Your task to perform on an android device: toggle notification dots Image 0: 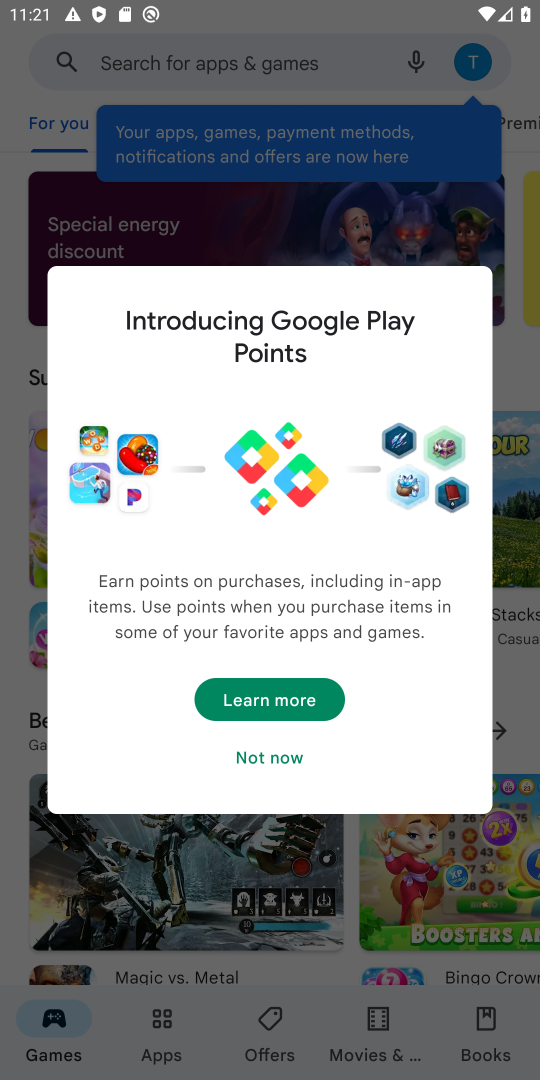
Step 0: press home button
Your task to perform on an android device: toggle notification dots Image 1: 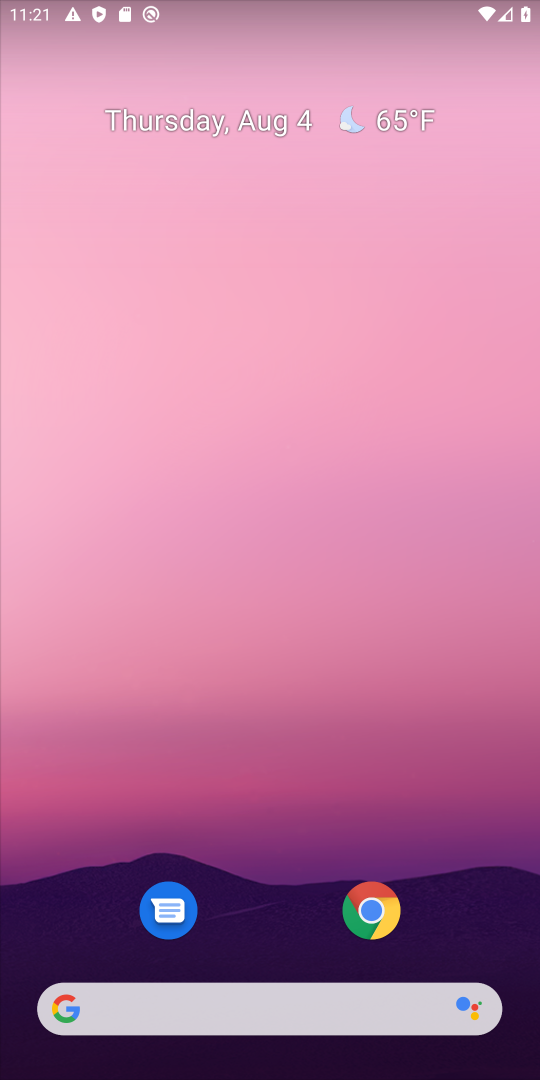
Step 1: drag from (211, 983) to (198, 298)
Your task to perform on an android device: toggle notification dots Image 2: 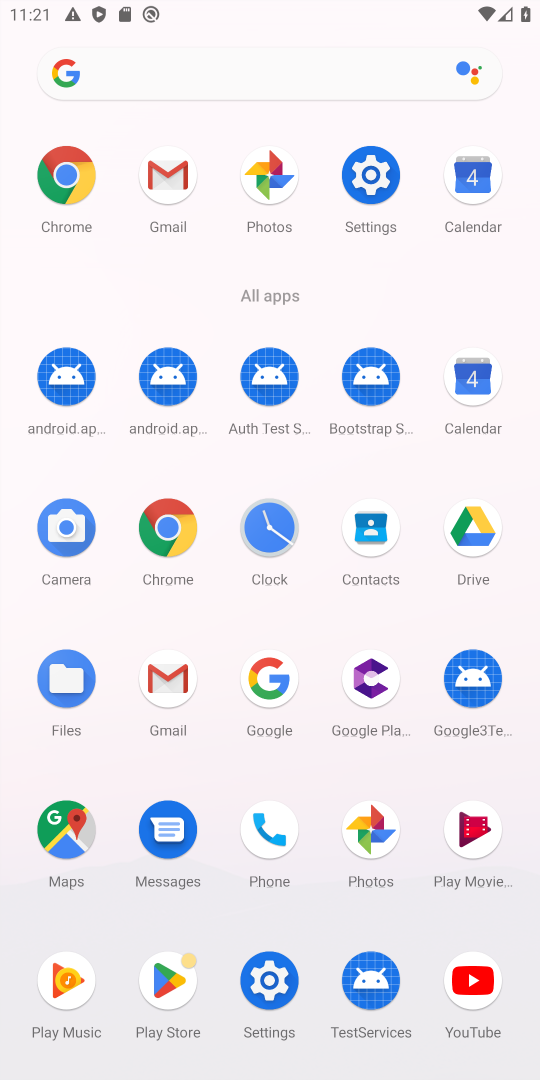
Step 2: click (371, 187)
Your task to perform on an android device: toggle notification dots Image 3: 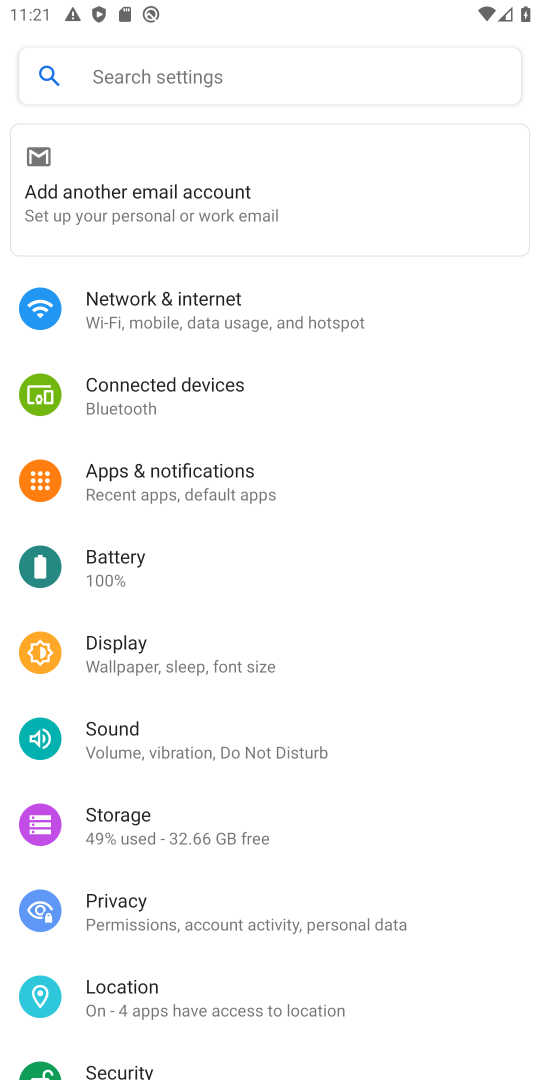
Step 3: click (200, 475)
Your task to perform on an android device: toggle notification dots Image 4: 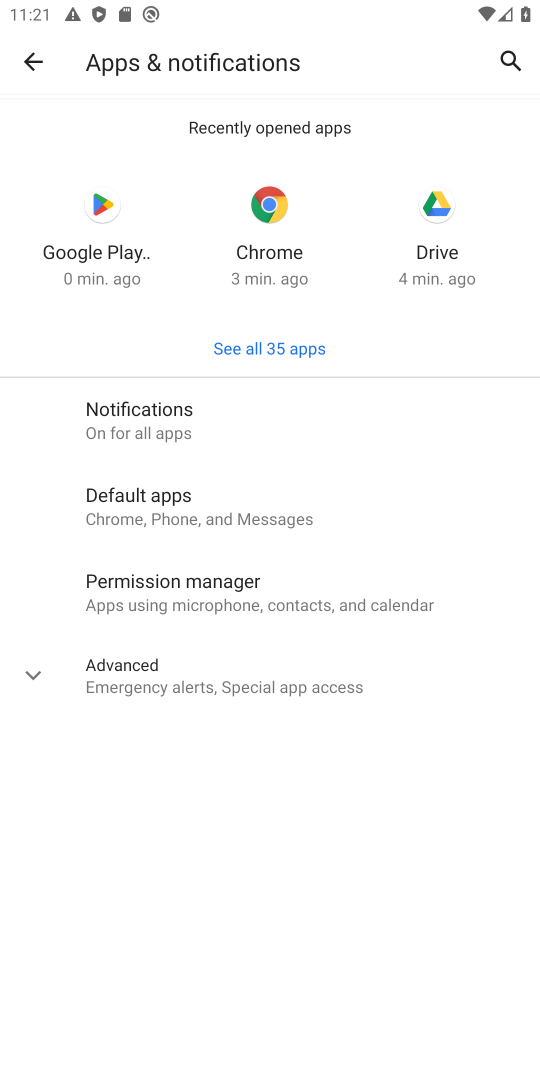
Step 4: click (167, 420)
Your task to perform on an android device: toggle notification dots Image 5: 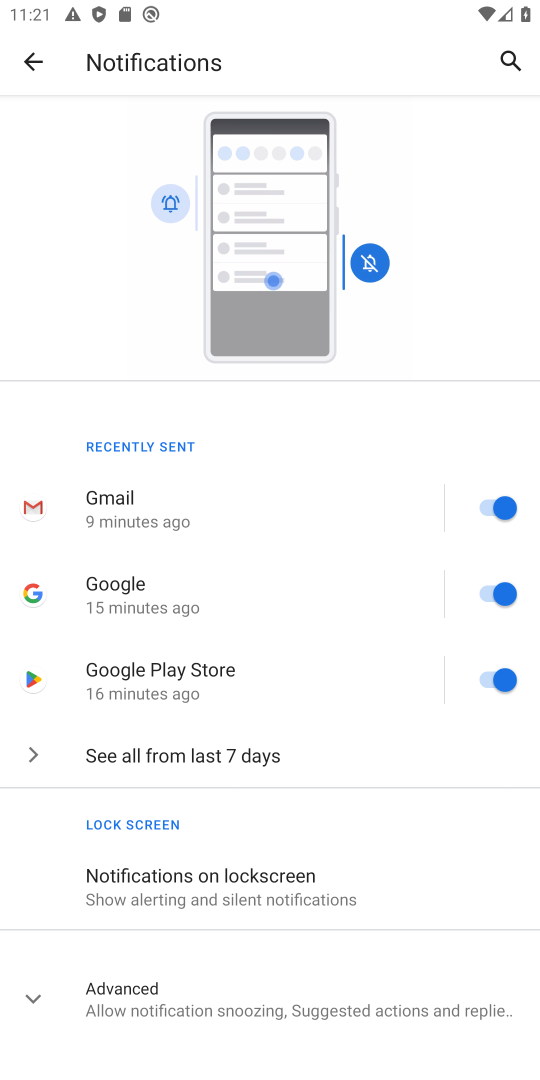
Step 5: click (170, 984)
Your task to perform on an android device: toggle notification dots Image 6: 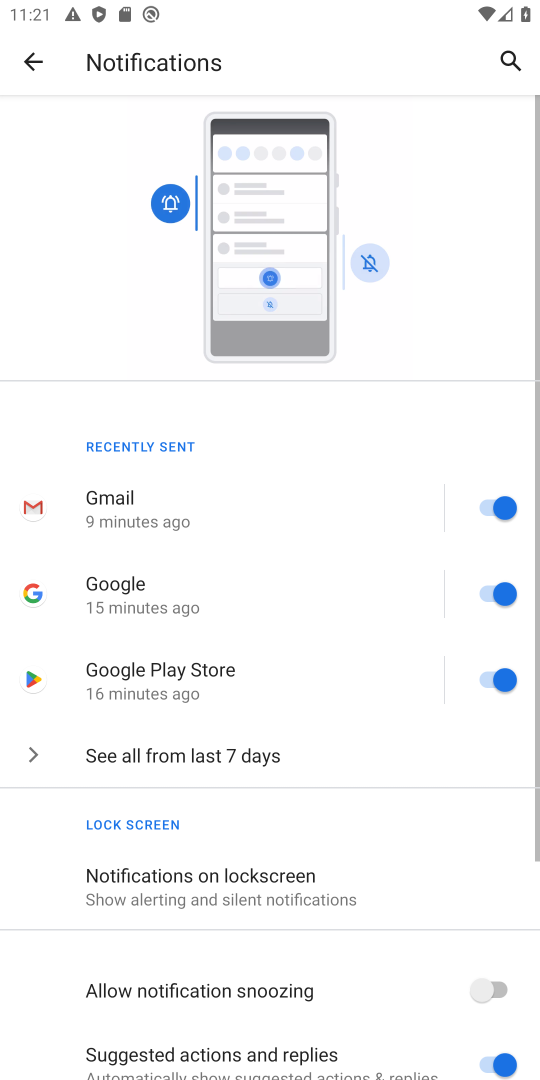
Step 6: drag from (168, 950) to (168, 508)
Your task to perform on an android device: toggle notification dots Image 7: 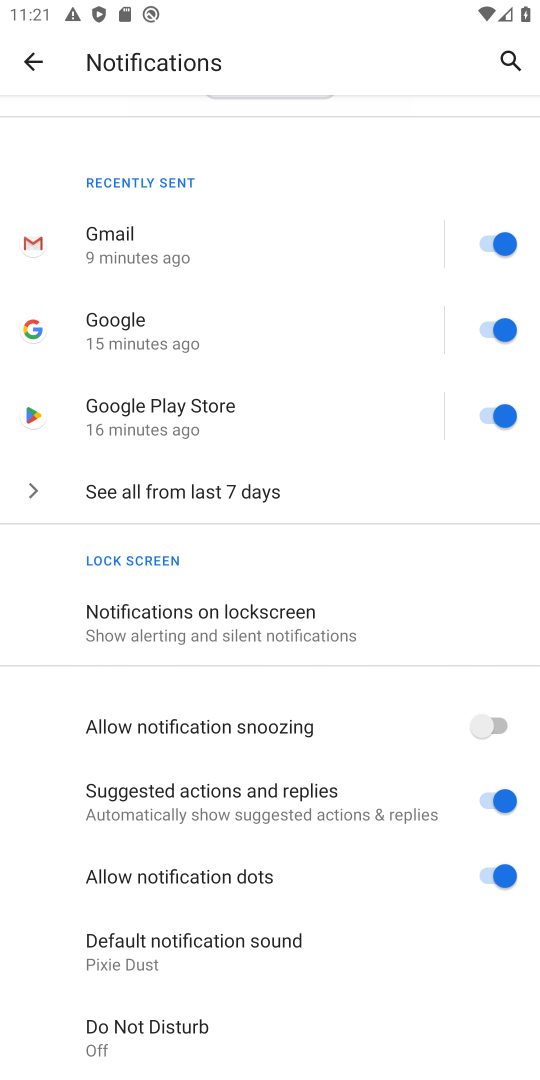
Step 7: click (487, 873)
Your task to perform on an android device: toggle notification dots Image 8: 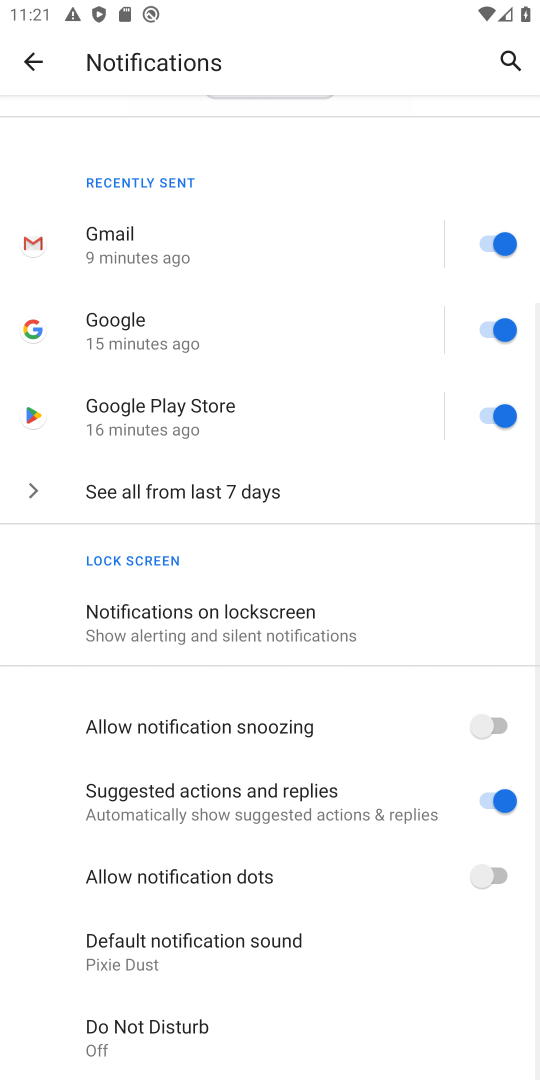
Step 8: task complete